Your task to perform on an android device: Go to CNN.com Image 0: 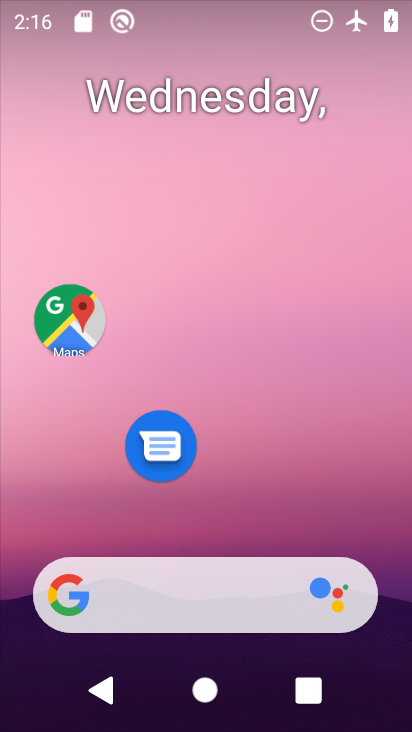
Step 0: drag from (351, 0) to (260, 6)
Your task to perform on an android device: Go to CNN.com Image 1: 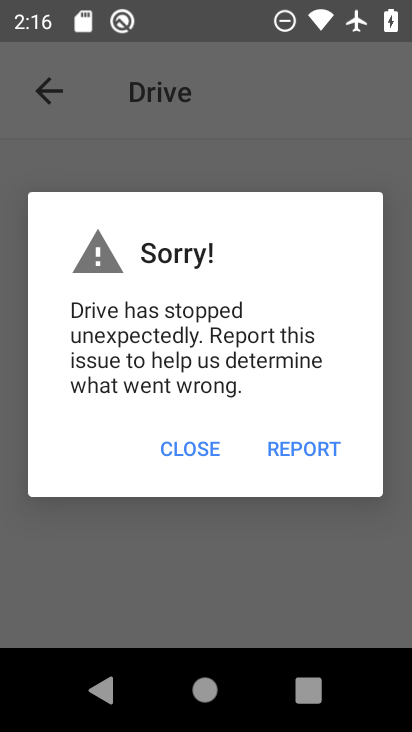
Step 1: press home button
Your task to perform on an android device: Go to CNN.com Image 2: 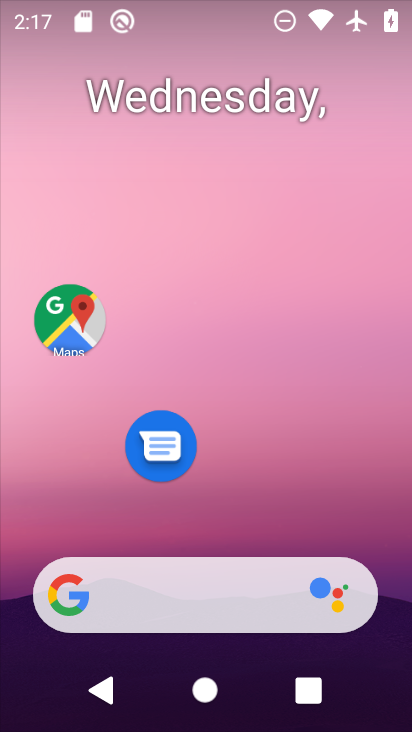
Step 2: drag from (361, 493) to (267, 159)
Your task to perform on an android device: Go to CNN.com Image 3: 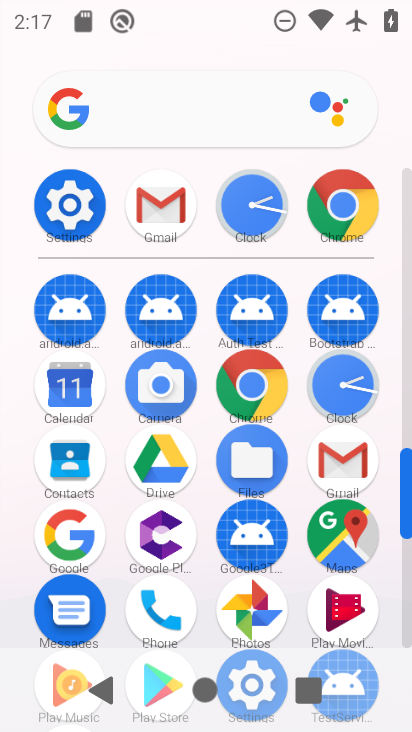
Step 3: click (328, 220)
Your task to perform on an android device: Go to CNN.com Image 4: 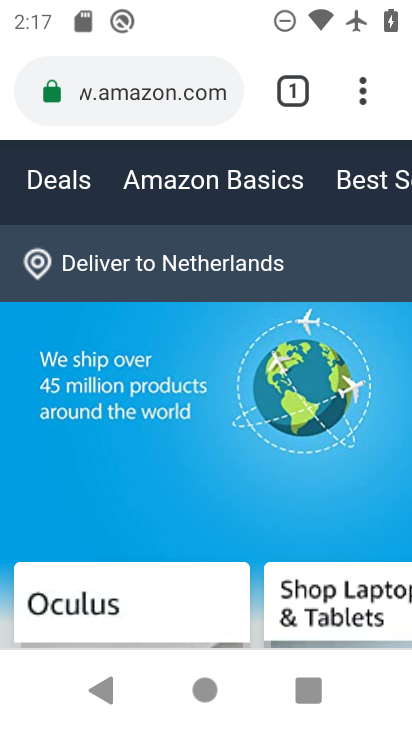
Step 4: click (347, 104)
Your task to perform on an android device: Go to CNN.com Image 5: 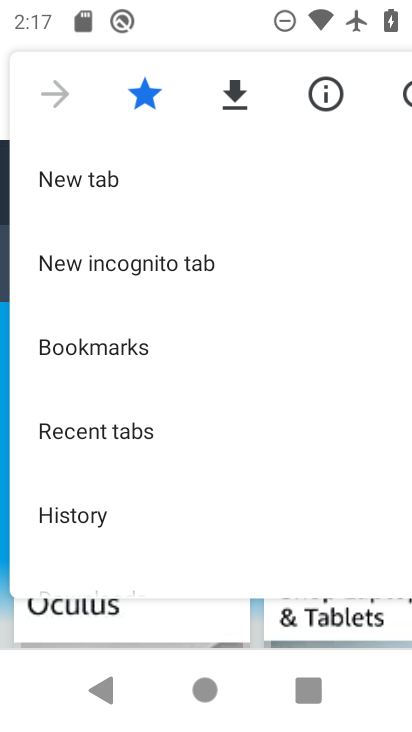
Step 5: drag from (147, 514) to (157, 99)
Your task to perform on an android device: Go to CNN.com Image 6: 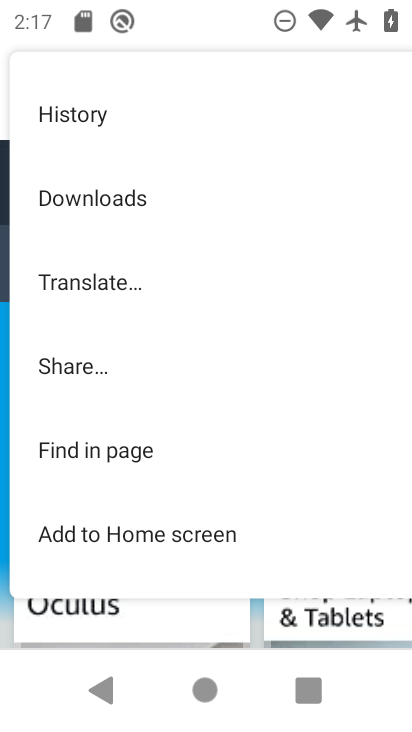
Step 6: click (93, 605)
Your task to perform on an android device: Go to CNN.com Image 7: 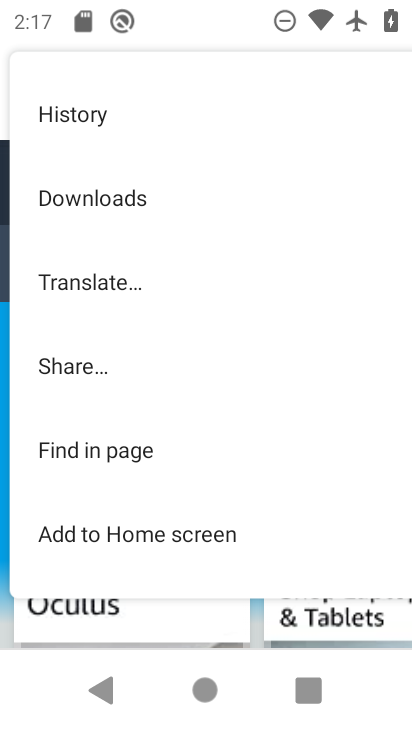
Step 7: click (97, 618)
Your task to perform on an android device: Go to CNN.com Image 8: 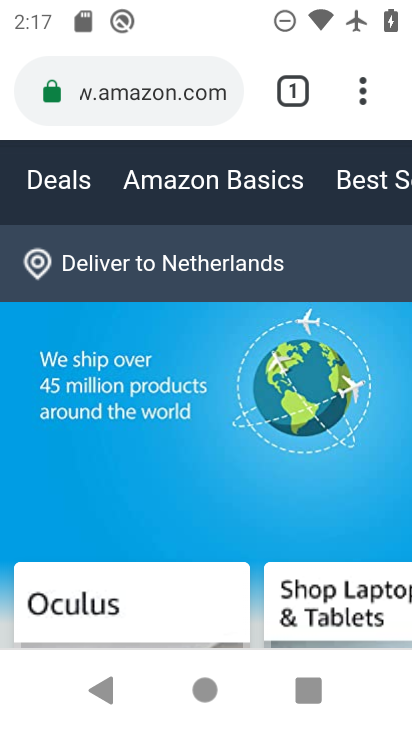
Step 8: click (110, 101)
Your task to perform on an android device: Go to CNN.com Image 9: 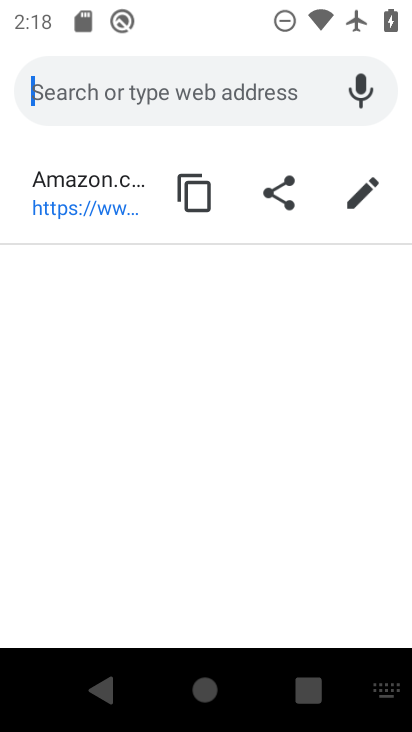
Step 9: type "cnn"
Your task to perform on an android device: Go to CNN.com Image 10: 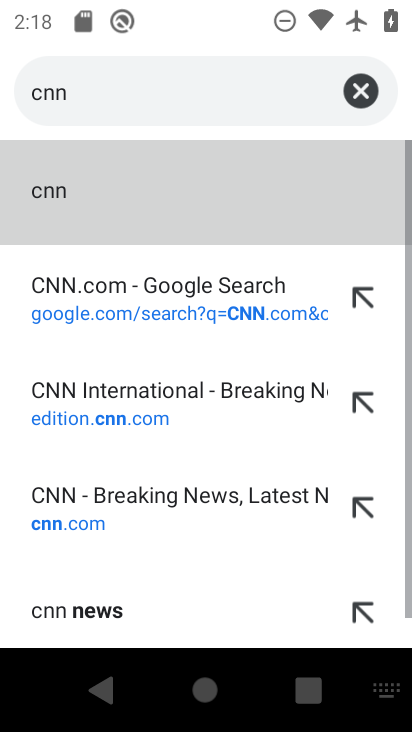
Step 10: click (110, 319)
Your task to perform on an android device: Go to CNN.com Image 11: 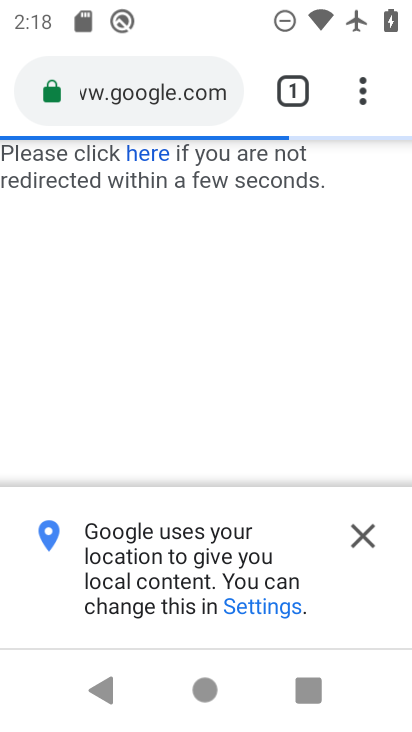
Step 11: task complete